Your task to perform on an android device: open app "PUBG MOBILE" Image 0: 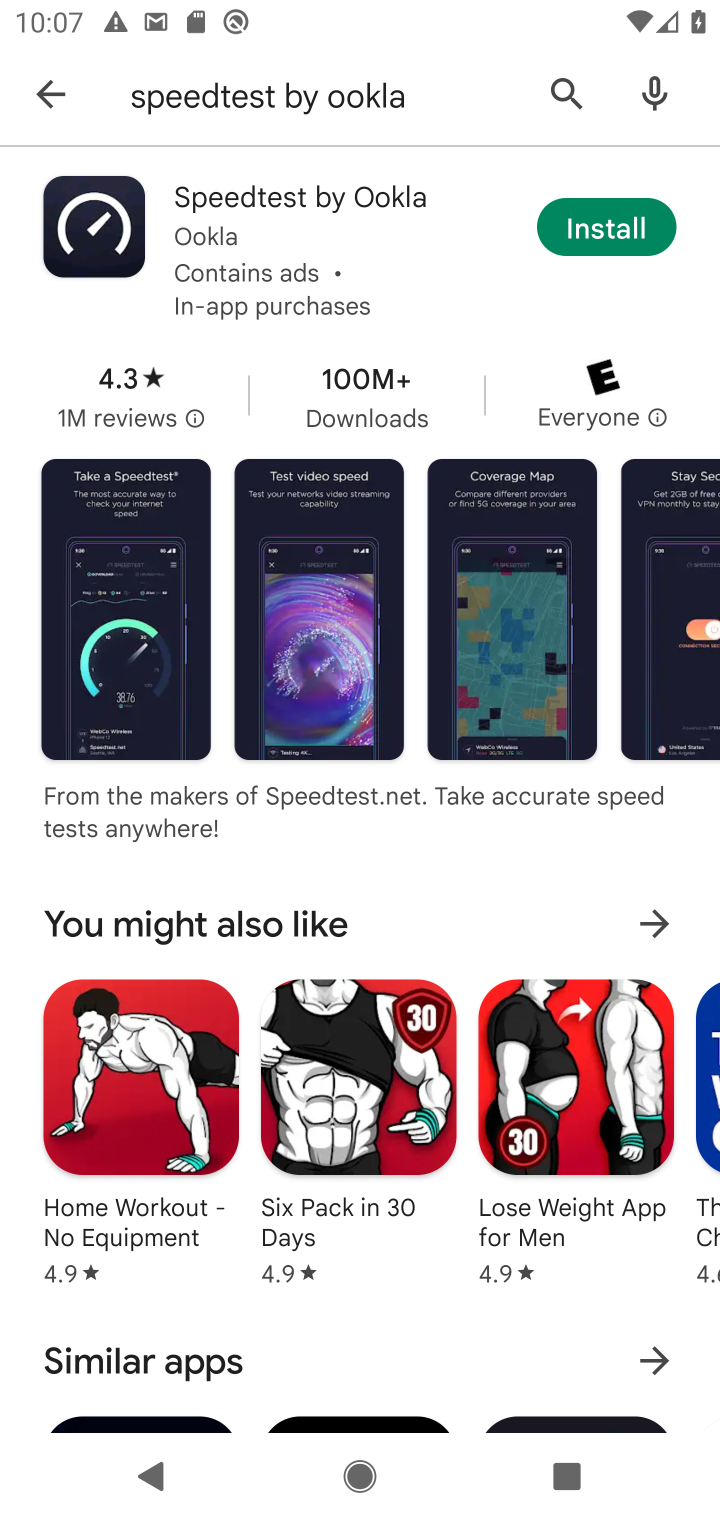
Step 0: press home button
Your task to perform on an android device: open app "PUBG MOBILE" Image 1: 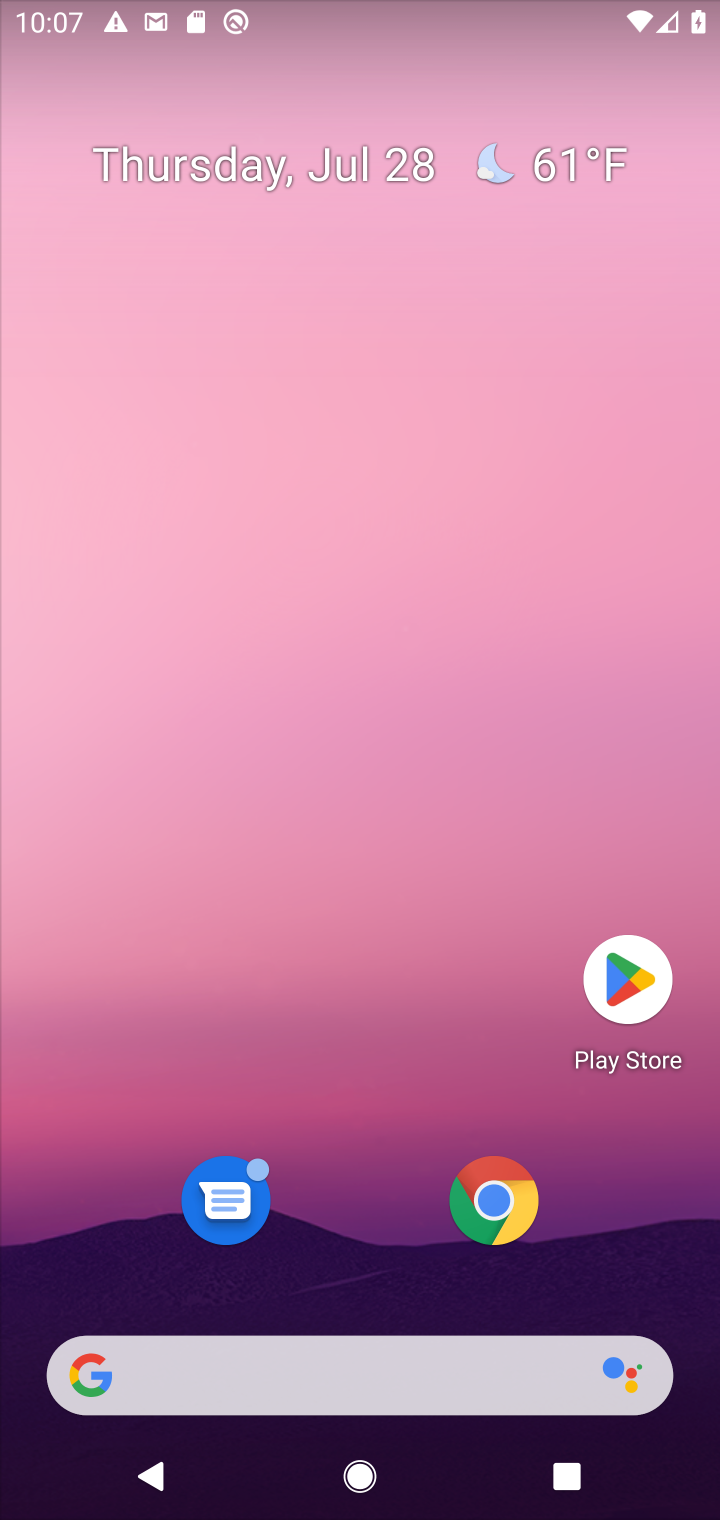
Step 1: click (616, 999)
Your task to perform on an android device: open app "PUBG MOBILE" Image 2: 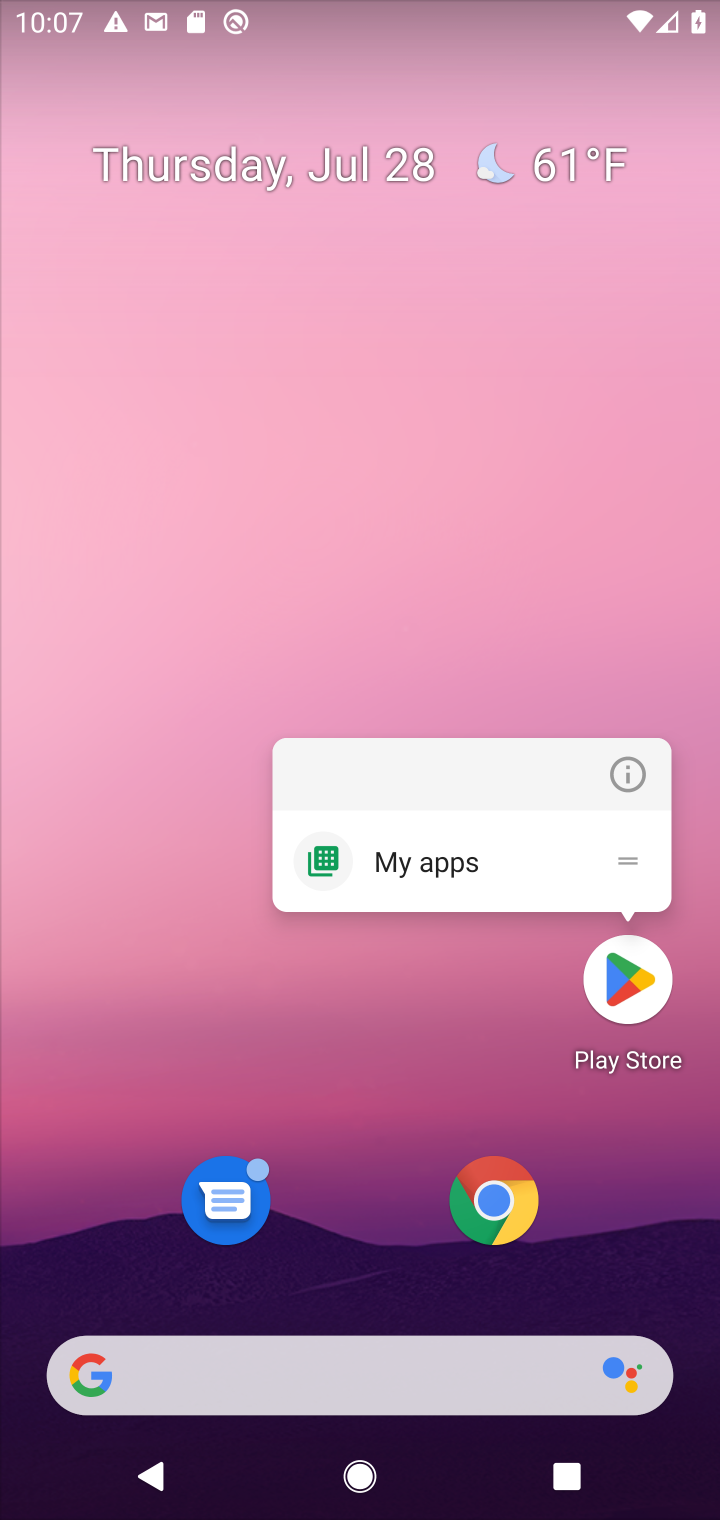
Step 2: click (616, 999)
Your task to perform on an android device: open app "PUBG MOBILE" Image 3: 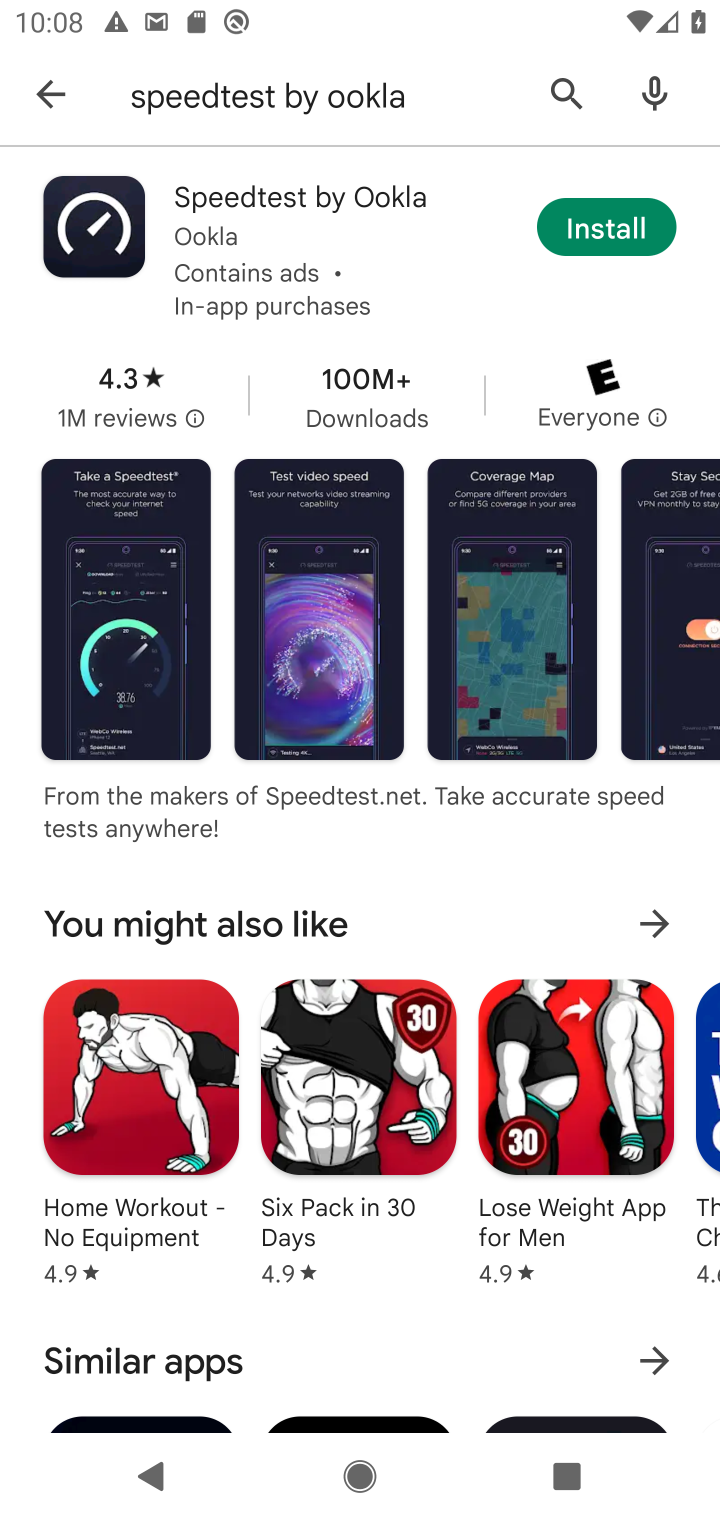
Step 3: click (559, 78)
Your task to perform on an android device: open app "PUBG MOBILE" Image 4: 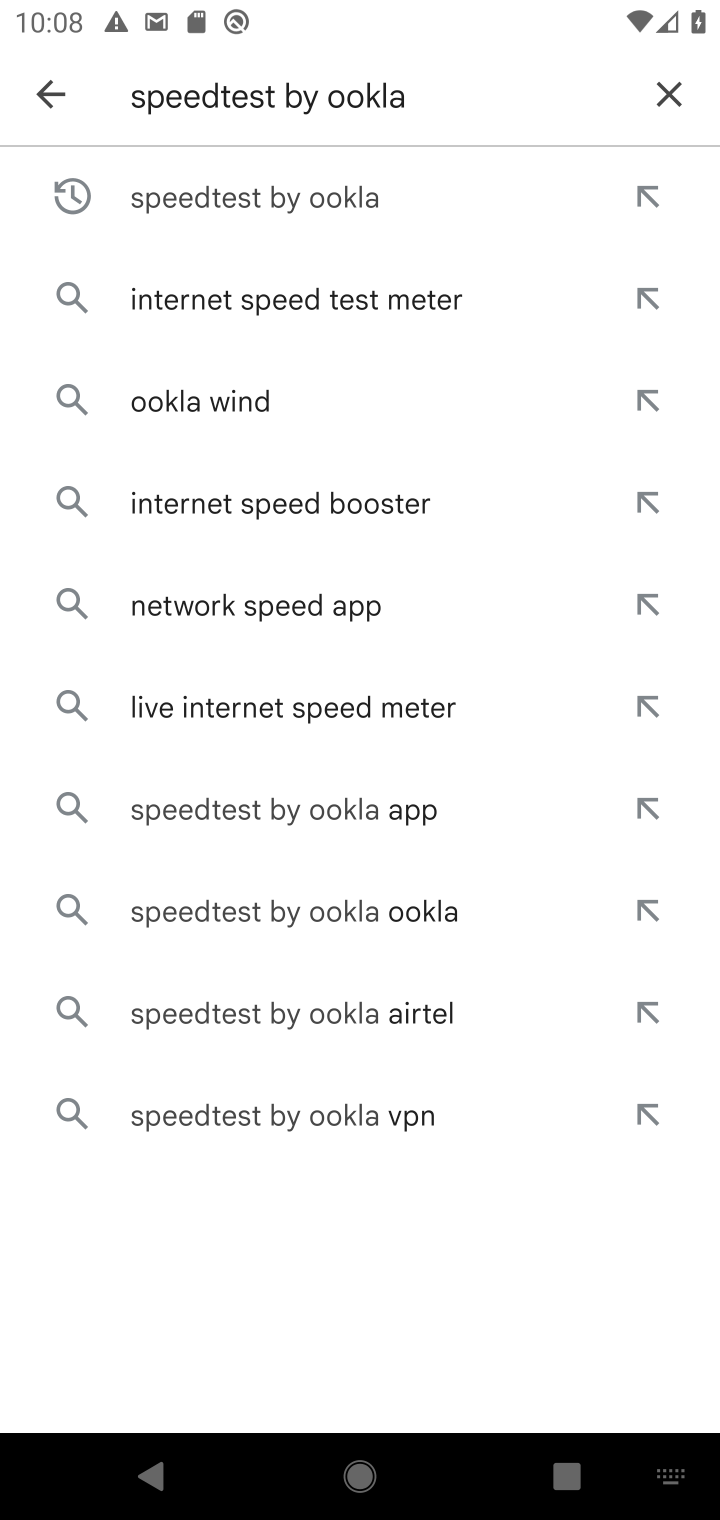
Step 4: click (671, 89)
Your task to perform on an android device: open app "PUBG MOBILE" Image 5: 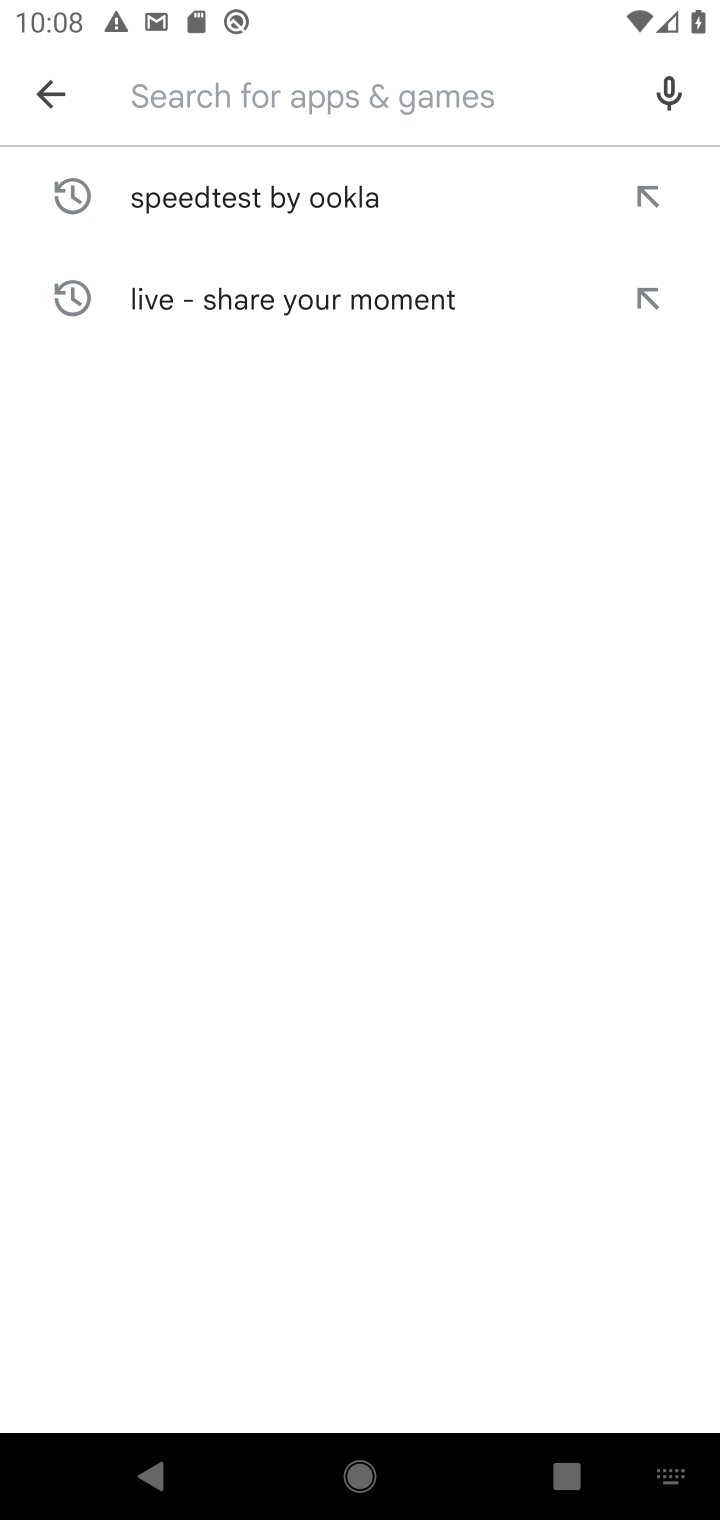
Step 5: type "PUBG MOBILE"
Your task to perform on an android device: open app "PUBG MOBILE" Image 6: 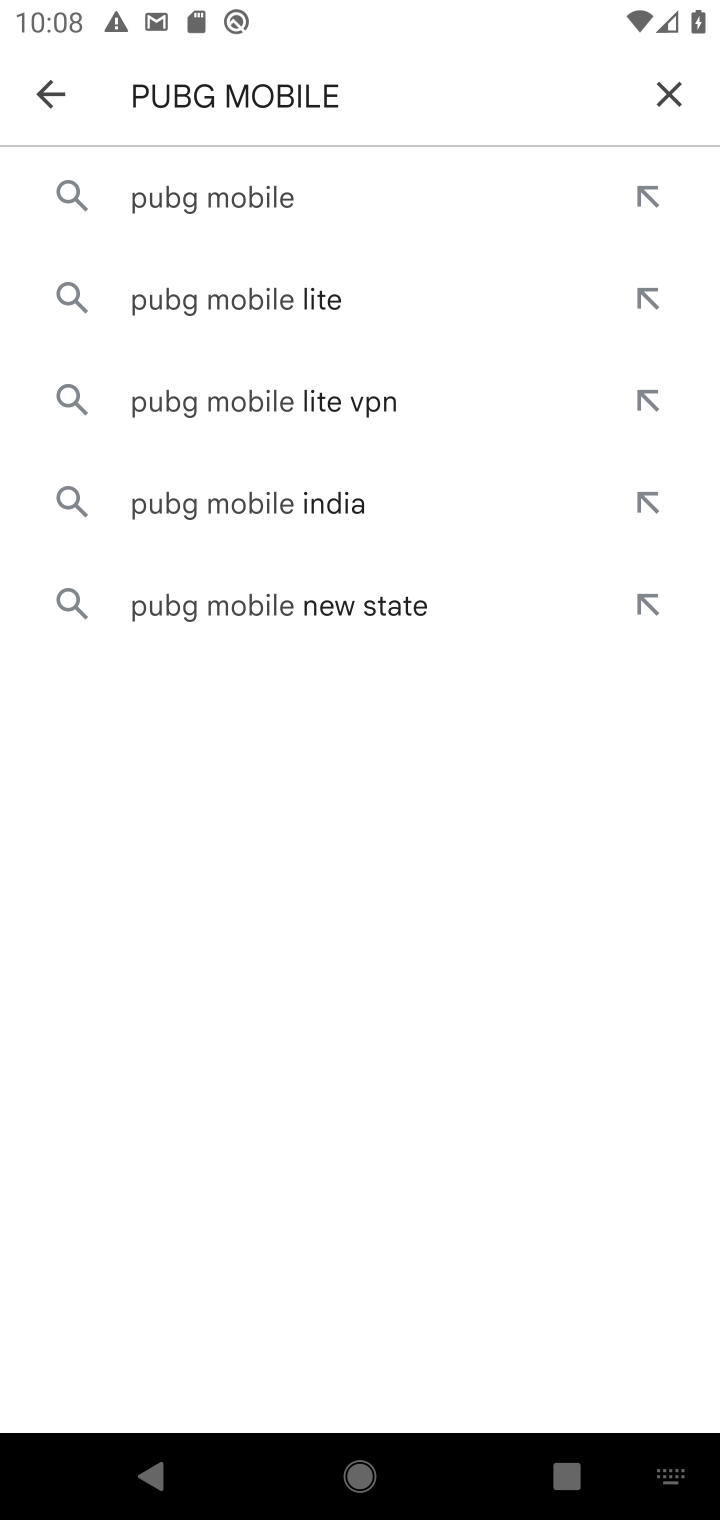
Step 6: click (262, 210)
Your task to perform on an android device: open app "PUBG MOBILE" Image 7: 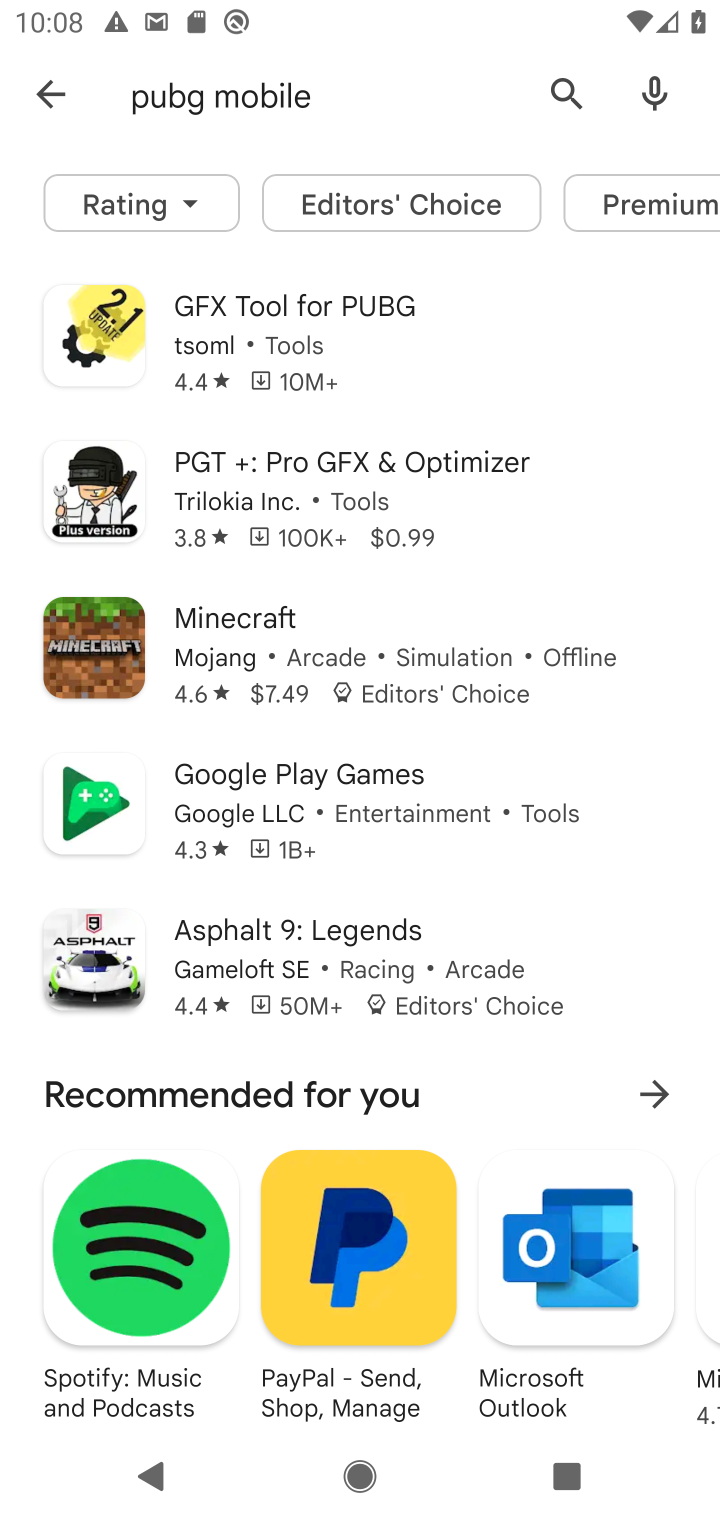
Step 7: task complete